Your task to perform on an android device: add a label to a message in the gmail app Image 0: 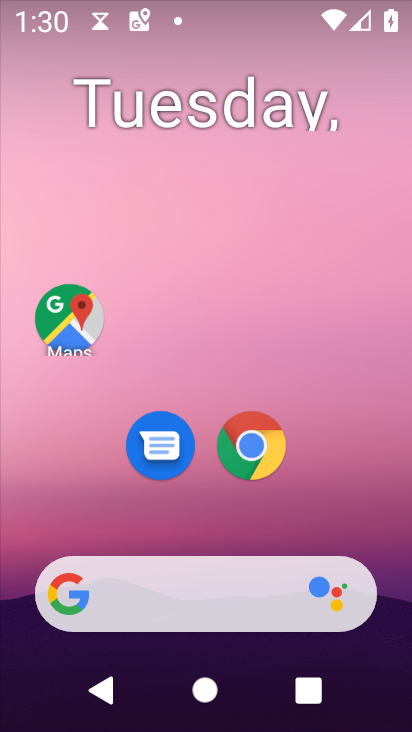
Step 0: drag from (353, 646) to (299, 21)
Your task to perform on an android device: add a label to a message in the gmail app Image 1: 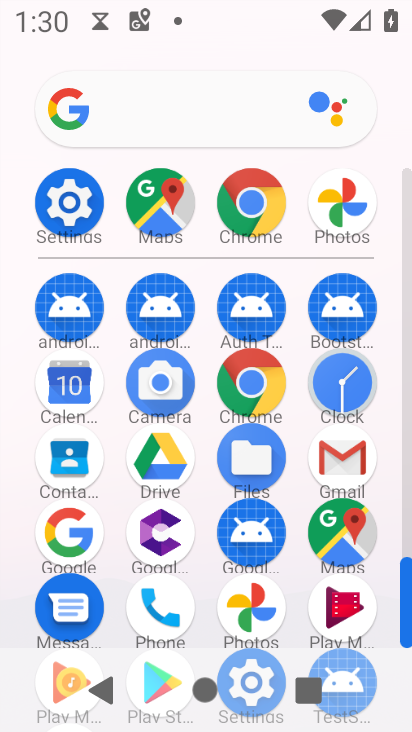
Step 1: click (362, 461)
Your task to perform on an android device: add a label to a message in the gmail app Image 2: 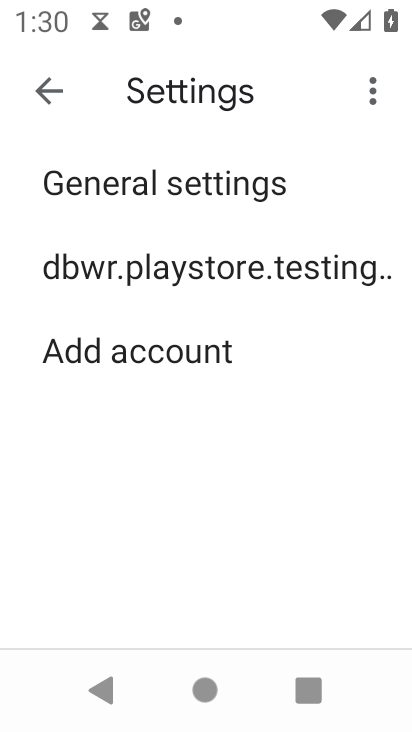
Step 2: press back button
Your task to perform on an android device: add a label to a message in the gmail app Image 3: 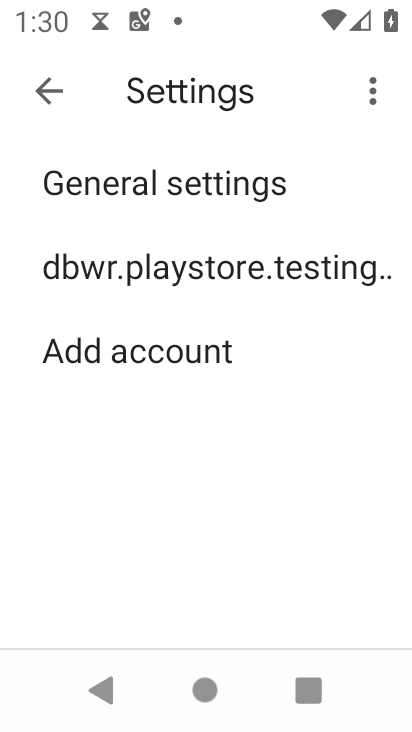
Step 3: press back button
Your task to perform on an android device: add a label to a message in the gmail app Image 4: 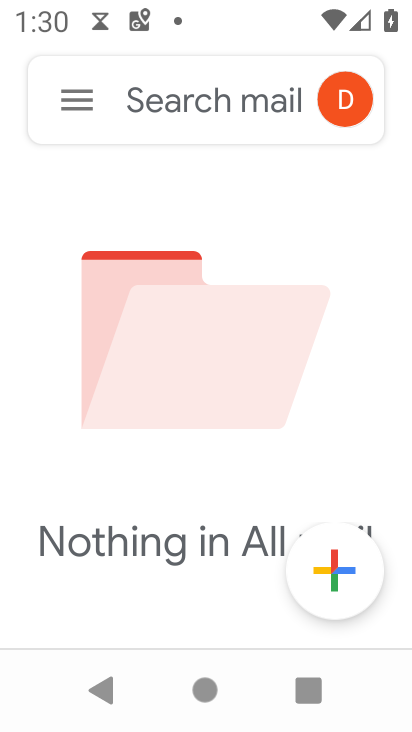
Step 4: click (81, 89)
Your task to perform on an android device: add a label to a message in the gmail app Image 5: 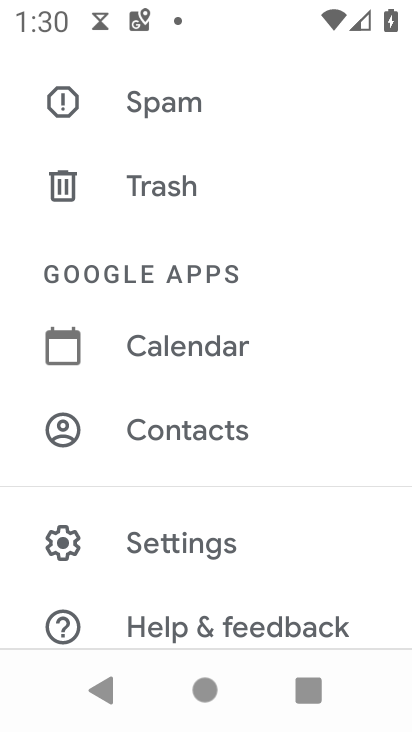
Step 5: drag from (277, 255) to (263, 662)
Your task to perform on an android device: add a label to a message in the gmail app Image 6: 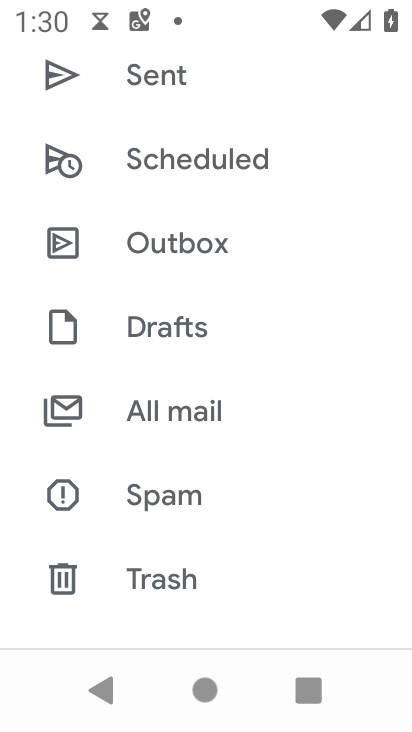
Step 6: drag from (281, 182) to (272, 575)
Your task to perform on an android device: add a label to a message in the gmail app Image 7: 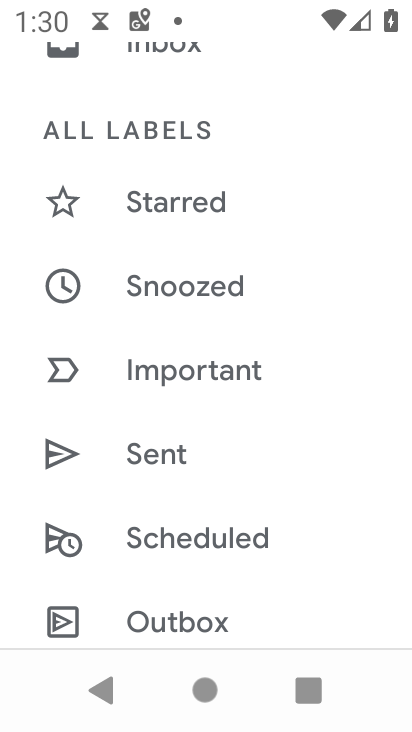
Step 7: drag from (193, 179) to (215, 528)
Your task to perform on an android device: add a label to a message in the gmail app Image 8: 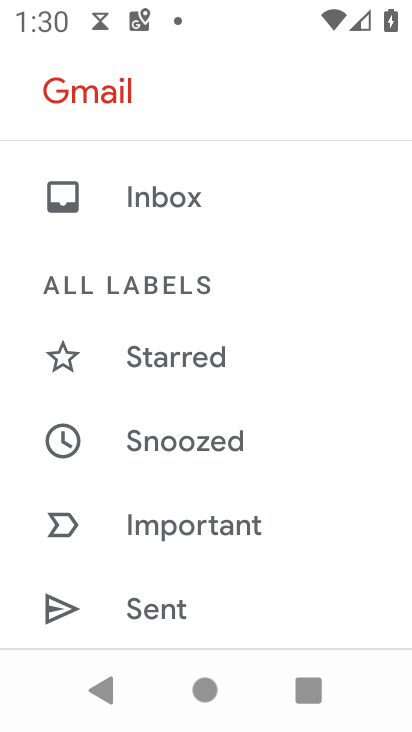
Step 8: click (197, 208)
Your task to perform on an android device: add a label to a message in the gmail app Image 9: 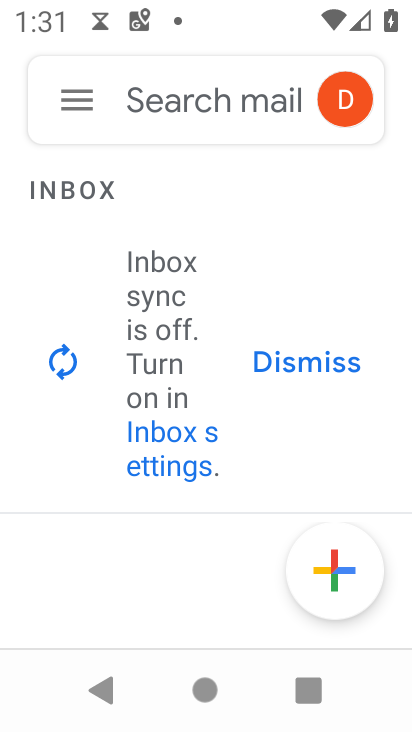
Step 9: task complete